Your task to perform on an android device: turn off smart reply in the gmail app Image 0: 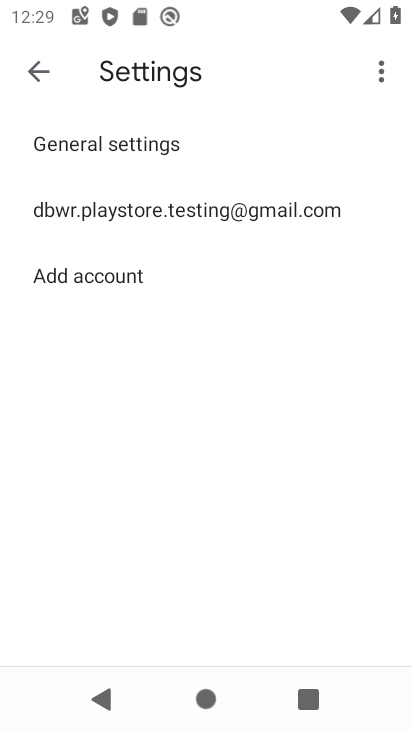
Step 0: press home button
Your task to perform on an android device: turn off smart reply in the gmail app Image 1: 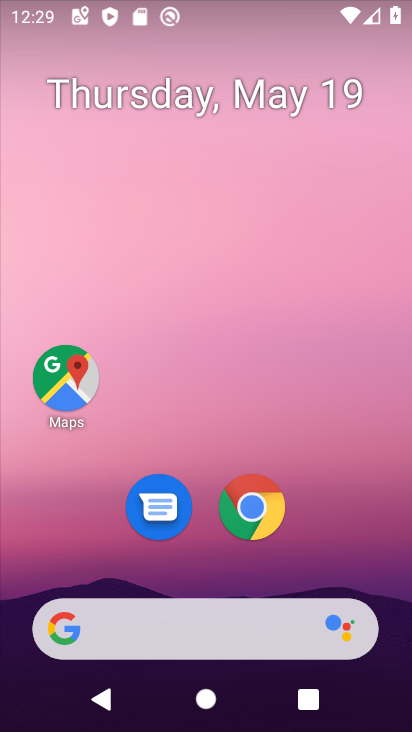
Step 1: drag from (230, 560) to (294, 152)
Your task to perform on an android device: turn off smart reply in the gmail app Image 2: 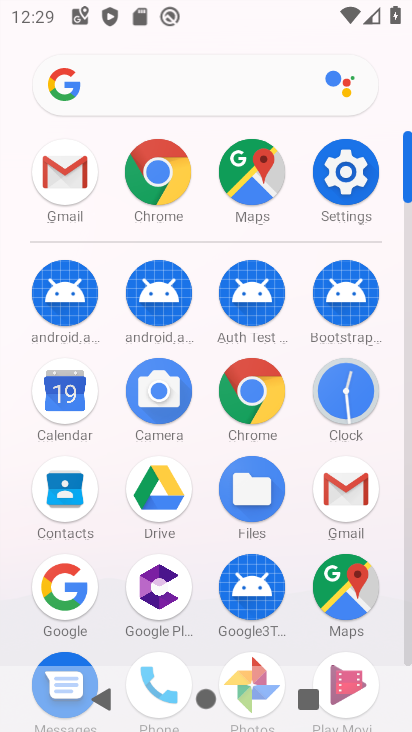
Step 2: click (348, 497)
Your task to perform on an android device: turn off smart reply in the gmail app Image 3: 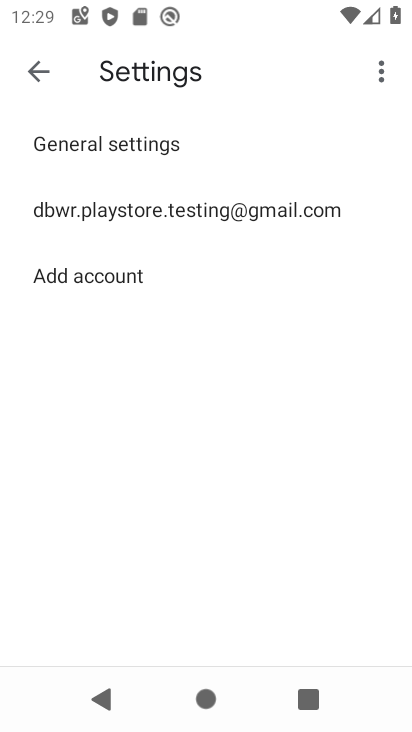
Step 3: click (164, 216)
Your task to perform on an android device: turn off smart reply in the gmail app Image 4: 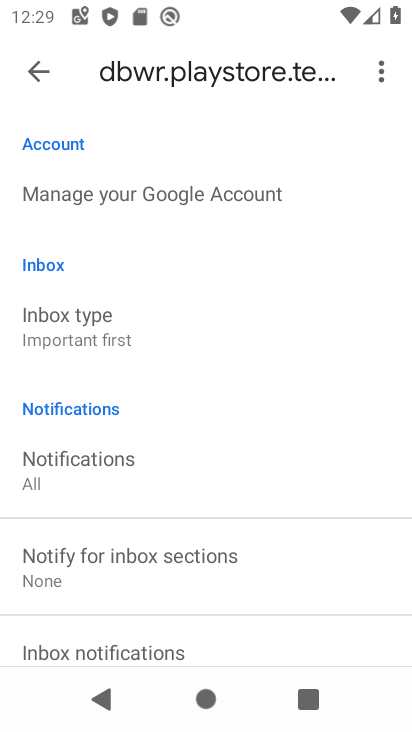
Step 4: drag from (184, 500) to (193, 142)
Your task to perform on an android device: turn off smart reply in the gmail app Image 5: 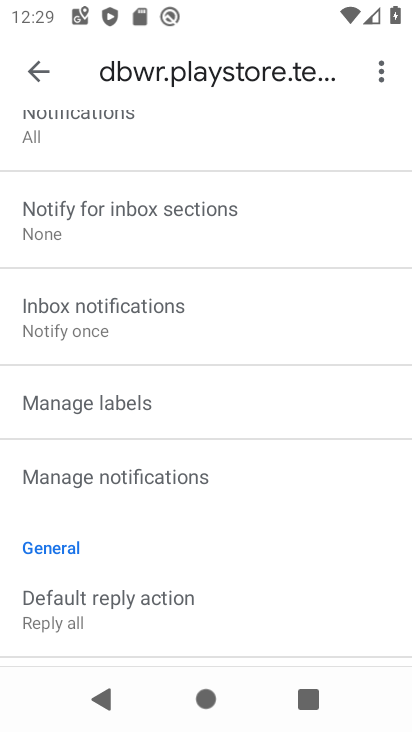
Step 5: drag from (137, 551) to (176, 191)
Your task to perform on an android device: turn off smart reply in the gmail app Image 6: 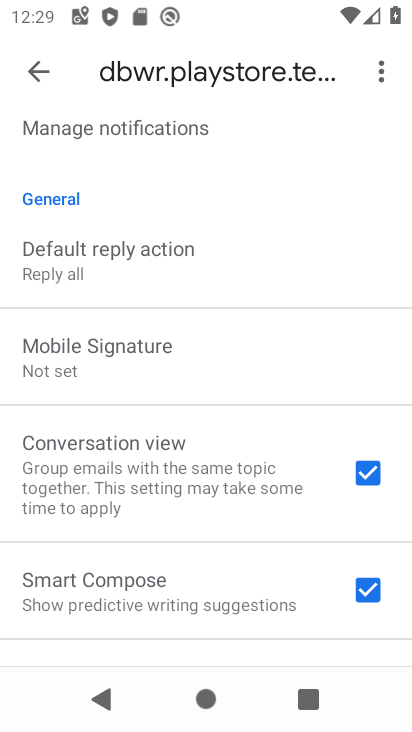
Step 6: drag from (173, 509) to (193, 311)
Your task to perform on an android device: turn off smart reply in the gmail app Image 7: 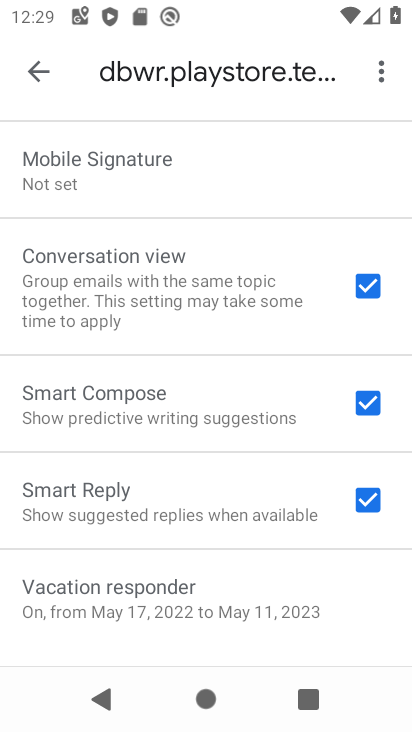
Step 7: click (349, 506)
Your task to perform on an android device: turn off smart reply in the gmail app Image 8: 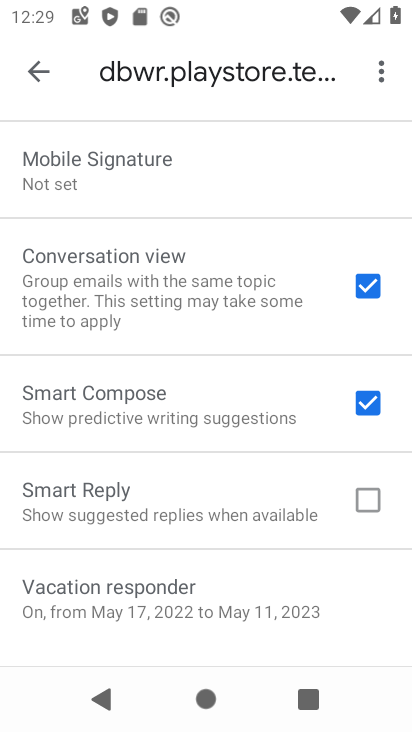
Step 8: task complete